Your task to perform on an android device: Show me popular videos on Youtube Image 0: 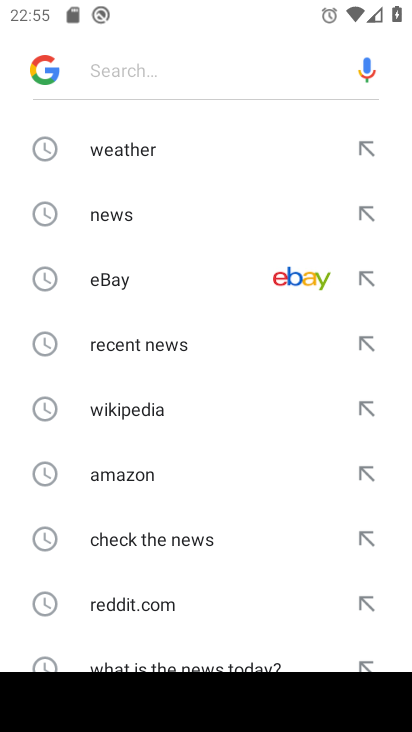
Step 0: press home button
Your task to perform on an android device: Show me popular videos on Youtube Image 1: 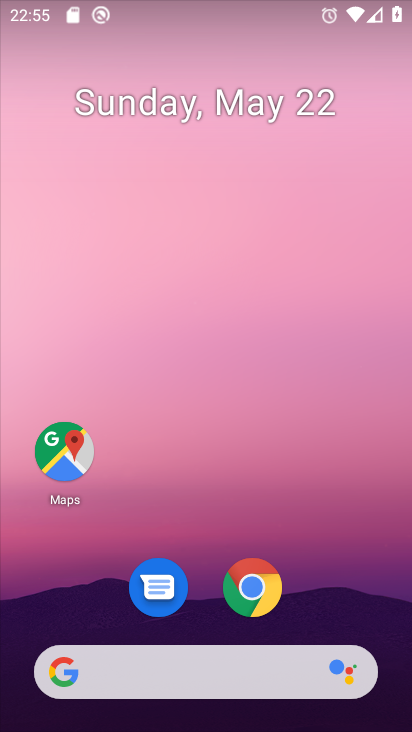
Step 1: drag from (199, 528) to (234, 2)
Your task to perform on an android device: Show me popular videos on Youtube Image 2: 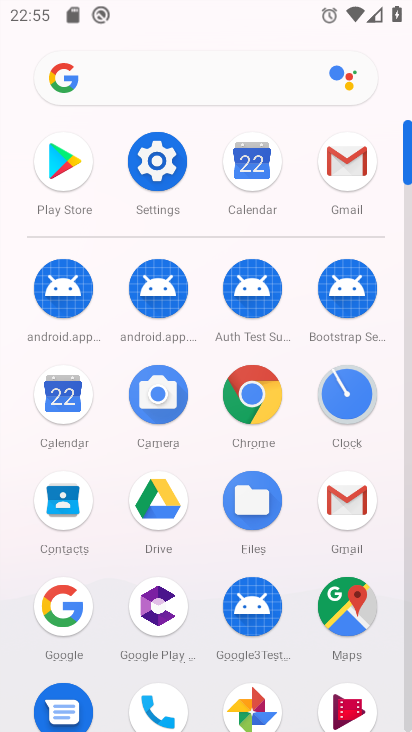
Step 2: drag from (198, 506) to (202, 283)
Your task to perform on an android device: Show me popular videos on Youtube Image 3: 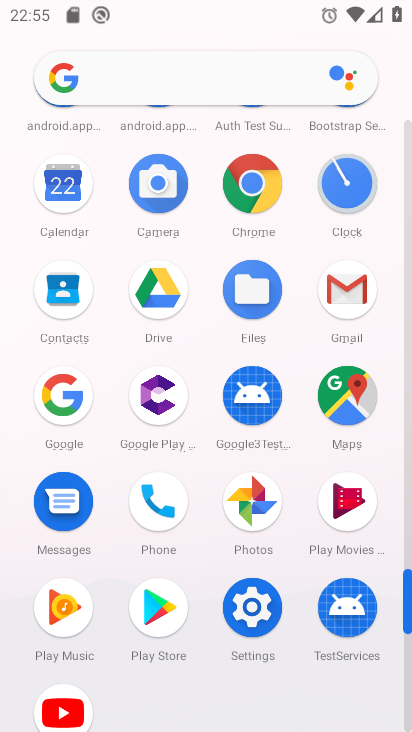
Step 3: click (56, 695)
Your task to perform on an android device: Show me popular videos on Youtube Image 4: 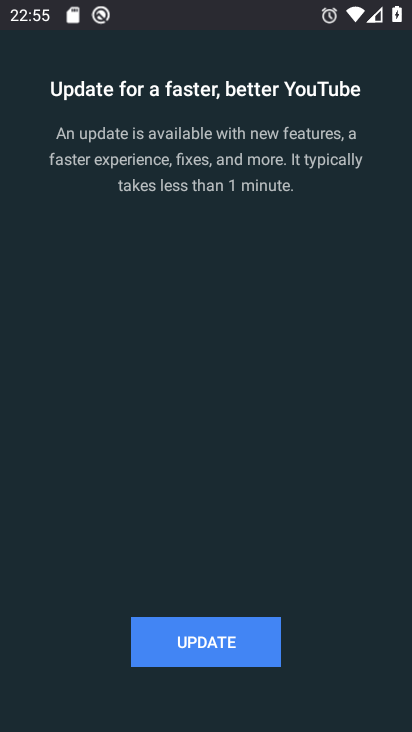
Step 4: click (196, 645)
Your task to perform on an android device: Show me popular videos on Youtube Image 5: 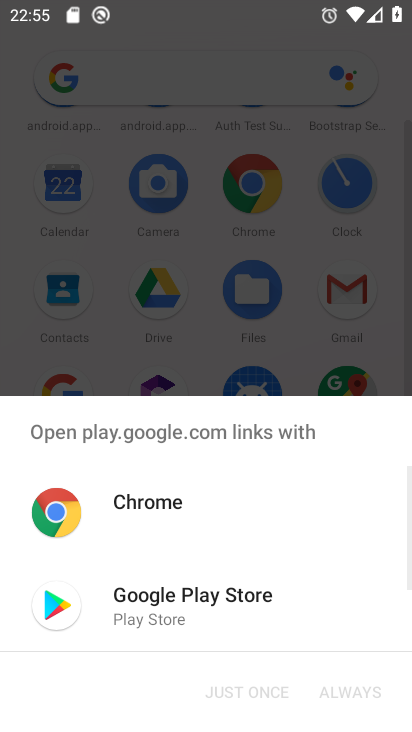
Step 5: click (163, 596)
Your task to perform on an android device: Show me popular videos on Youtube Image 6: 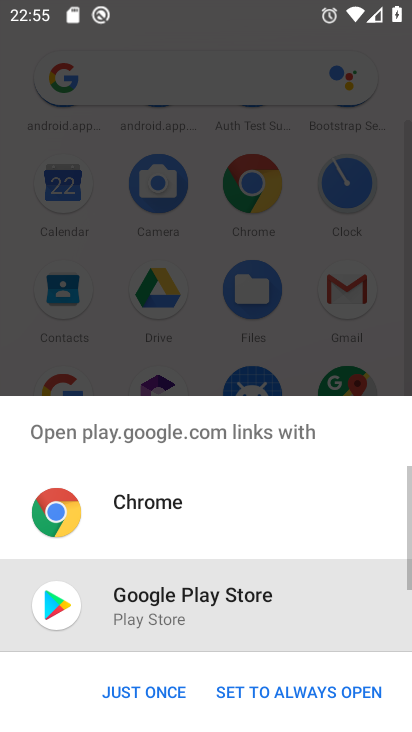
Step 6: click (152, 685)
Your task to perform on an android device: Show me popular videos on Youtube Image 7: 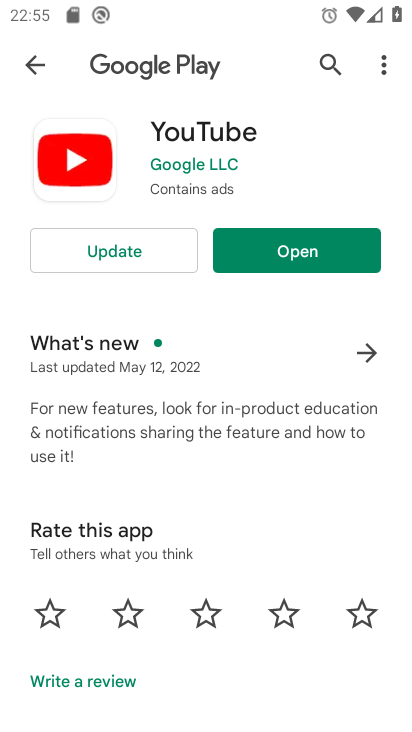
Step 7: click (153, 263)
Your task to perform on an android device: Show me popular videos on Youtube Image 8: 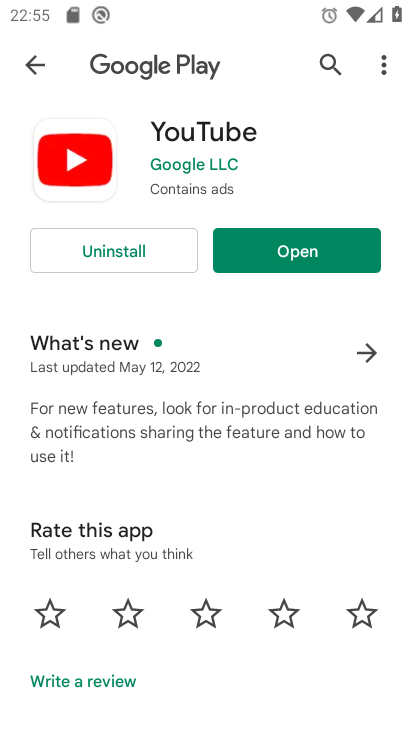
Step 8: click (317, 247)
Your task to perform on an android device: Show me popular videos on Youtube Image 9: 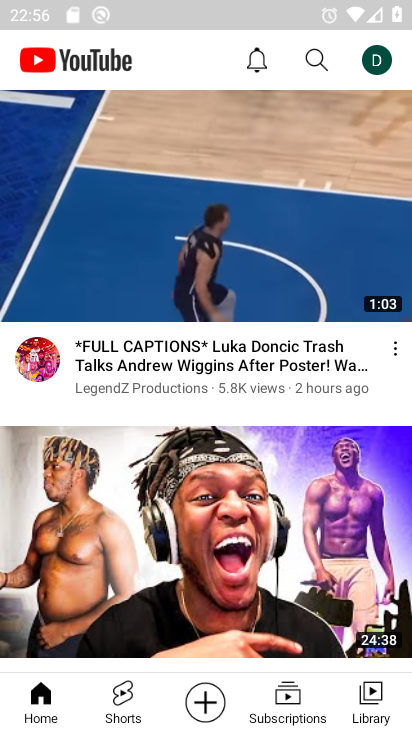
Step 9: click (123, 693)
Your task to perform on an android device: Show me popular videos on Youtube Image 10: 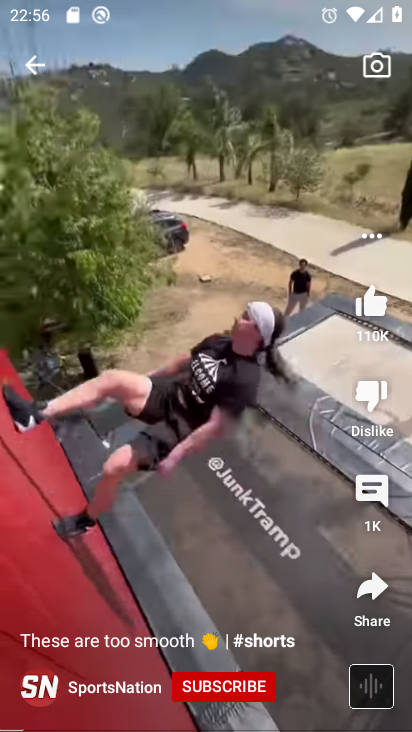
Step 10: click (28, 48)
Your task to perform on an android device: Show me popular videos on Youtube Image 11: 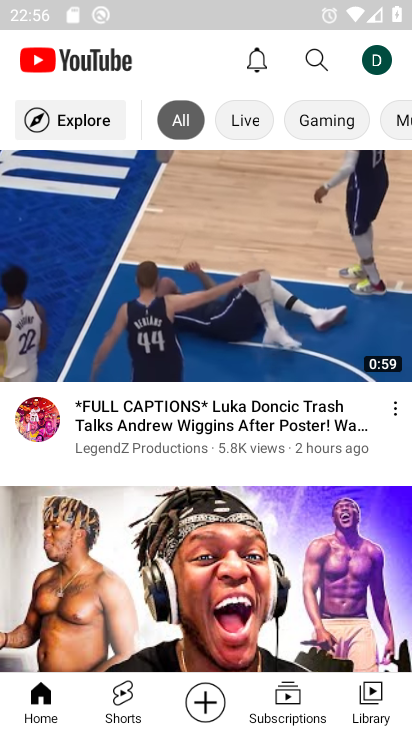
Step 11: task complete